Your task to perform on an android device: Go to eBay Image 0: 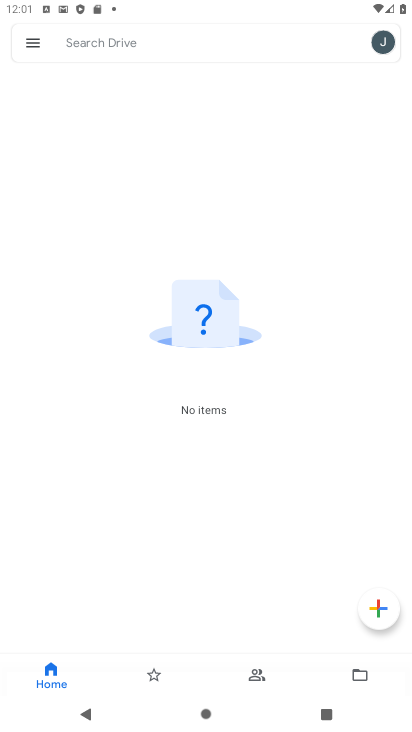
Step 0: press home button
Your task to perform on an android device: Go to eBay Image 1: 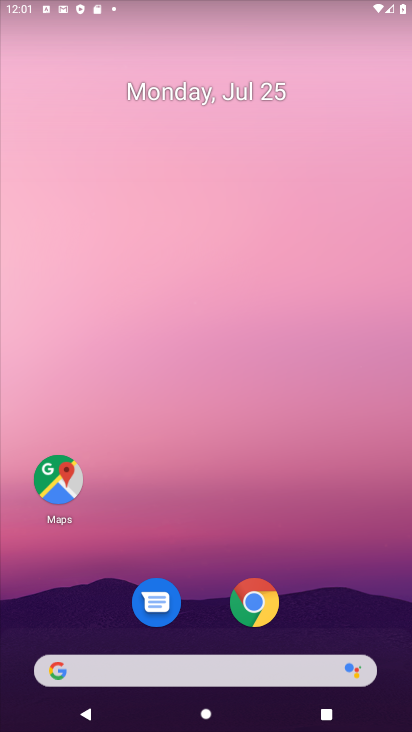
Step 1: click (248, 596)
Your task to perform on an android device: Go to eBay Image 2: 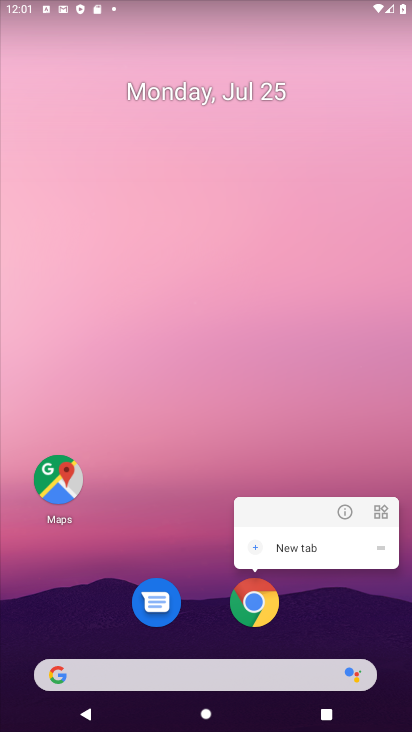
Step 2: click (253, 601)
Your task to perform on an android device: Go to eBay Image 3: 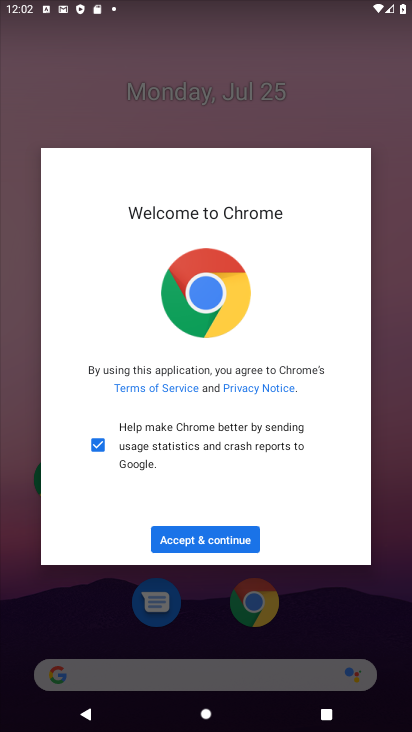
Step 3: click (188, 541)
Your task to perform on an android device: Go to eBay Image 4: 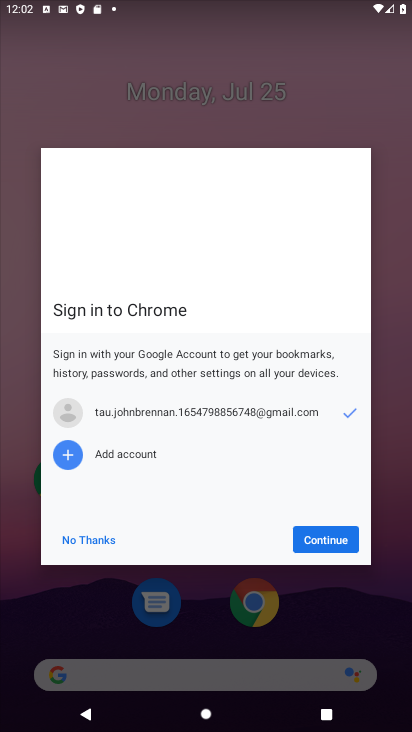
Step 4: click (304, 539)
Your task to perform on an android device: Go to eBay Image 5: 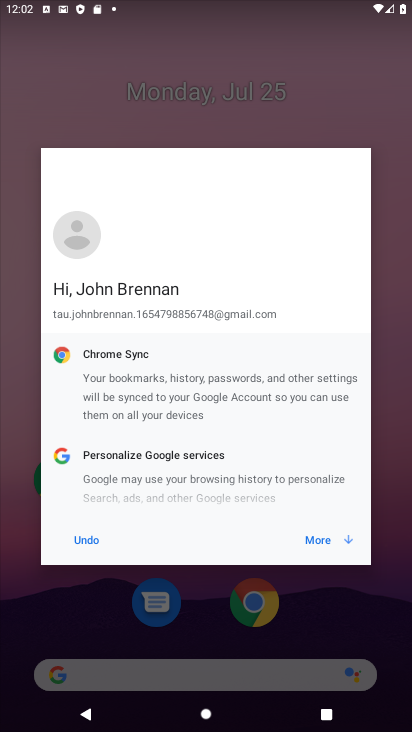
Step 5: click (306, 538)
Your task to perform on an android device: Go to eBay Image 6: 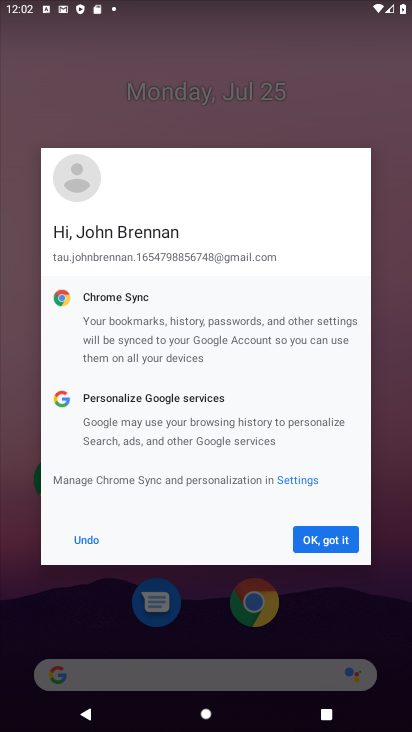
Step 6: click (306, 538)
Your task to perform on an android device: Go to eBay Image 7: 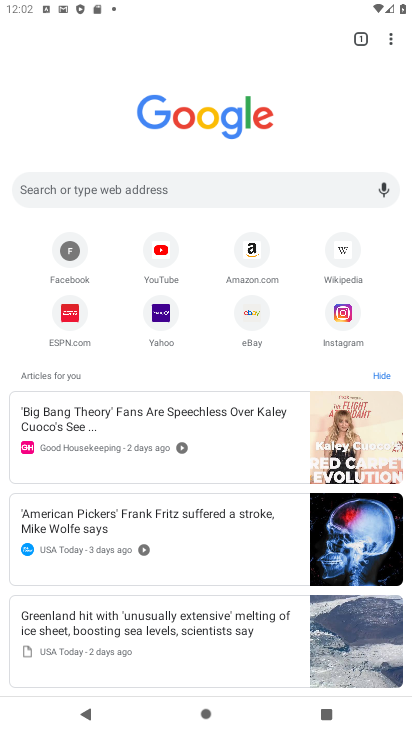
Step 7: click (235, 324)
Your task to perform on an android device: Go to eBay Image 8: 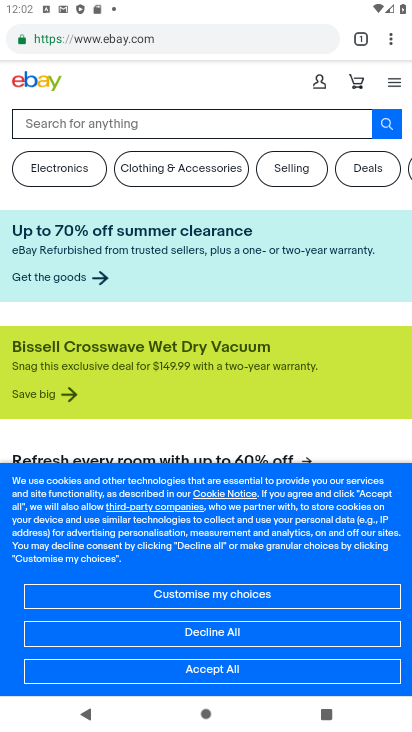
Step 8: task complete